Your task to perform on an android device: Go to Google Image 0: 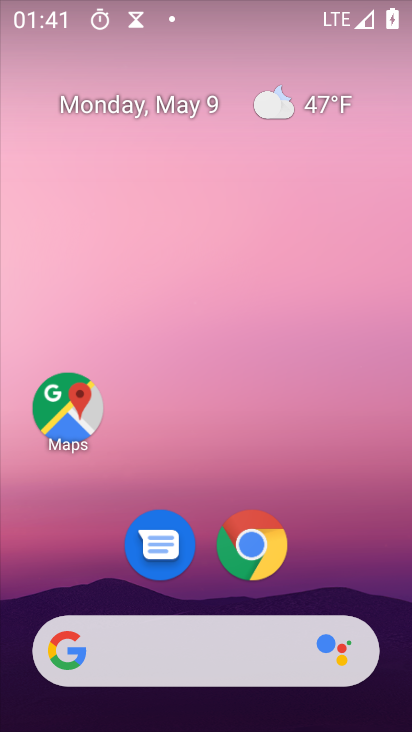
Step 0: drag from (337, 610) to (283, 65)
Your task to perform on an android device: Go to Google Image 1: 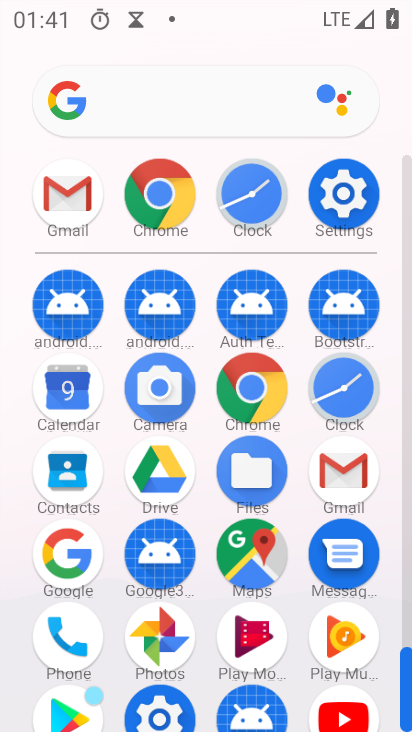
Step 1: click (239, 390)
Your task to perform on an android device: Go to Google Image 2: 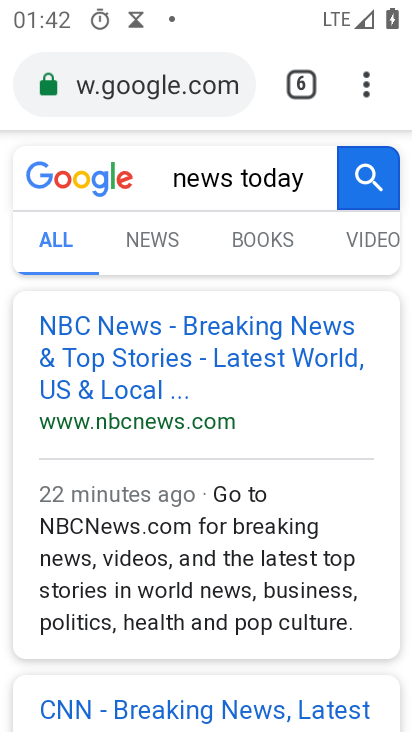
Step 2: task complete